Your task to perform on an android device: open sync settings in chrome Image 0: 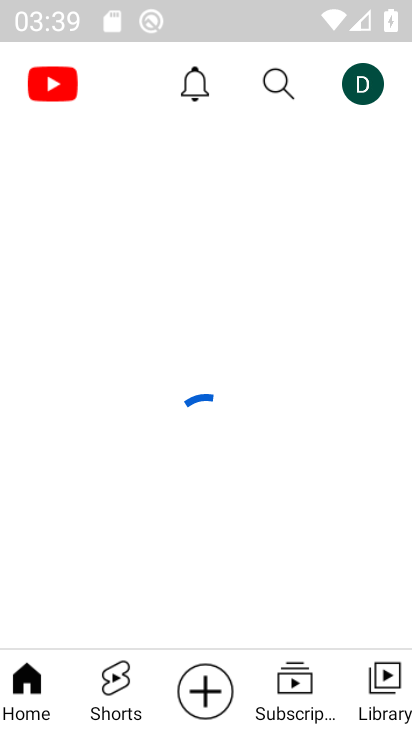
Step 0: press home button
Your task to perform on an android device: open sync settings in chrome Image 1: 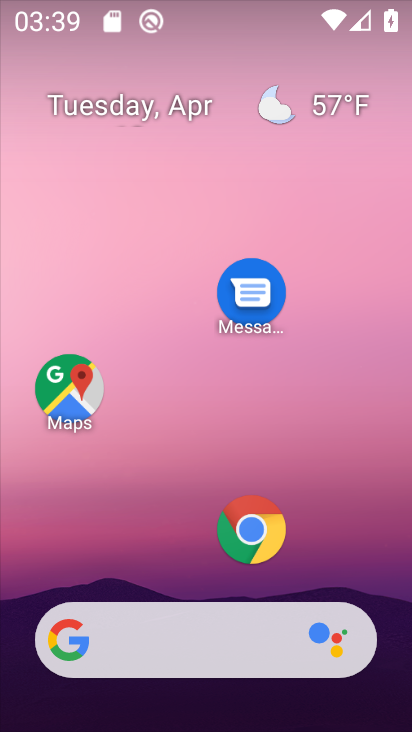
Step 1: click (249, 533)
Your task to perform on an android device: open sync settings in chrome Image 2: 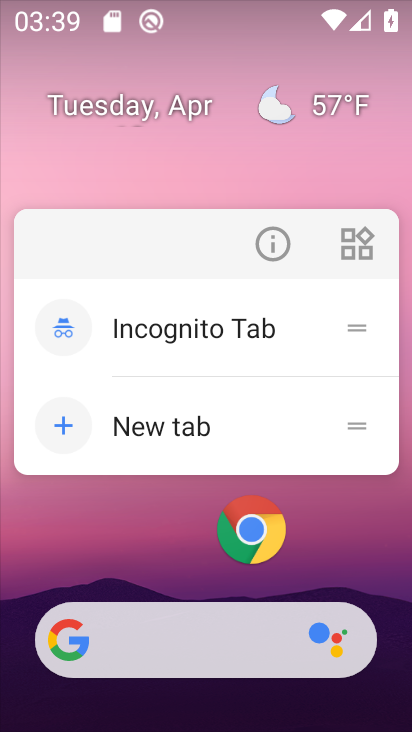
Step 2: click (249, 533)
Your task to perform on an android device: open sync settings in chrome Image 3: 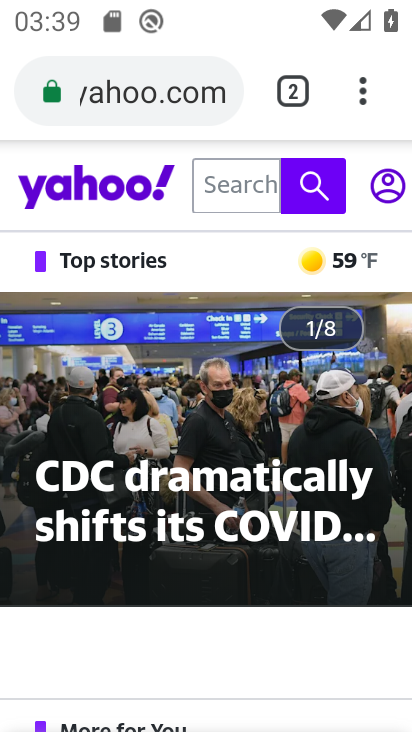
Step 3: click (358, 87)
Your task to perform on an android device: open sync settings in chrome Image 4: 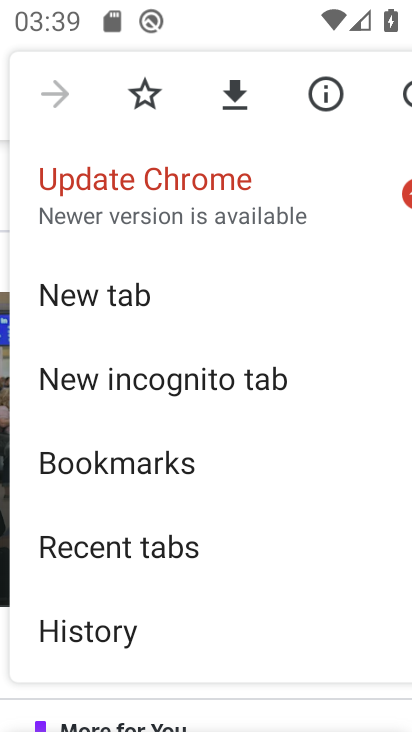
Step 4: drag from (205, 550) to (197, 124)
Your task to perform on an android device: open sync settings in chrome Image 5: 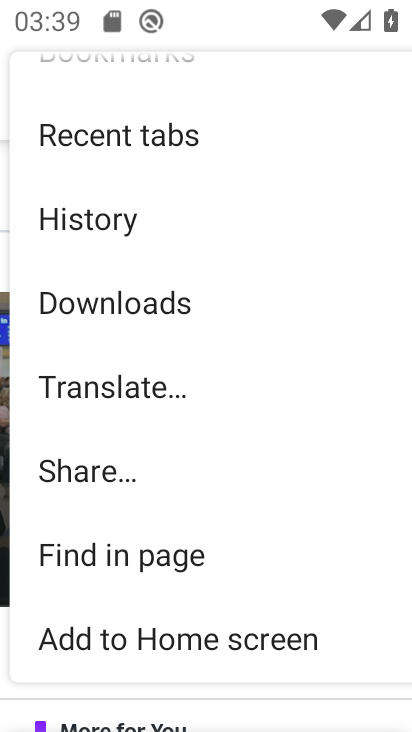
Step 5: drag from (183, 553) to (217, 188)
Your task to perform on an android device: open sync settings in chrome Image 6: 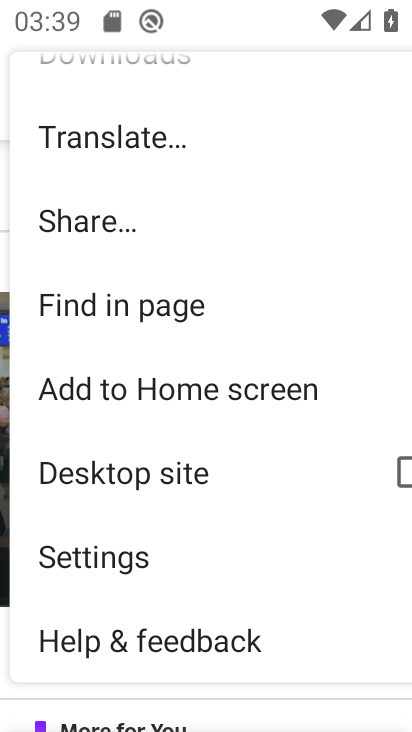
Step 6: click (127, 550)
Your task to perform on an android device: open sync settings in chrome Image 7: 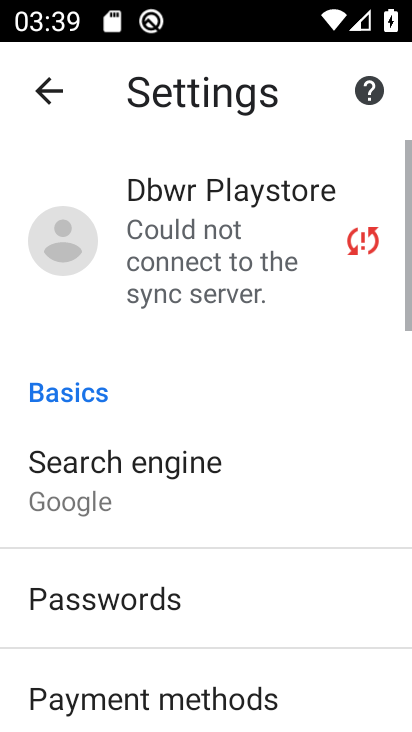
Step 7: drag from (191, 580) to (212, 213)
Your task to perform on an android device: open sync settings in chrome Image 8: 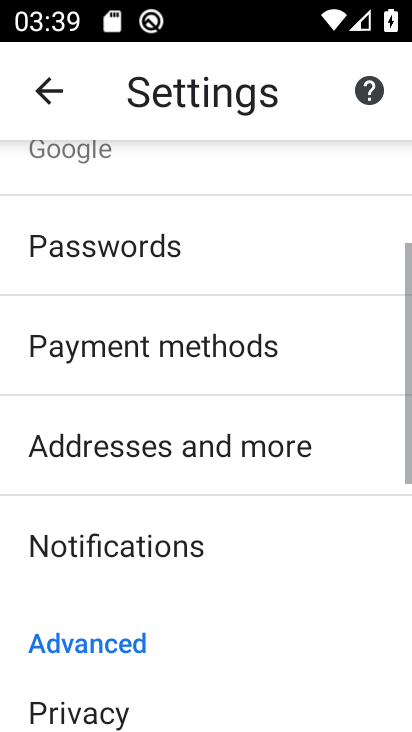
Step 8: drag from (203, 609) to (228, 247)
Your task to perform on an android device: open sync settings in chrome Image 9: 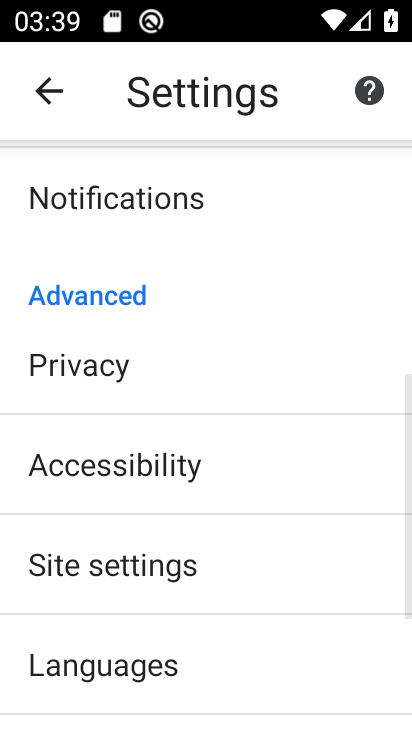
Step 9: drag from (172, 628) to (188, 327)
Your task to perform on an android device: open sync settings in chrome Image 10: 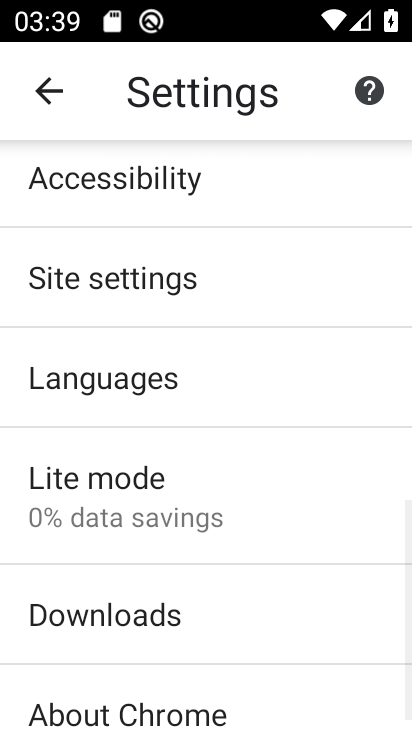
Step 10: drag from (154, 550) to (184, 416)
Your task to perform on an android device: open sync settings in chrome Image 11: 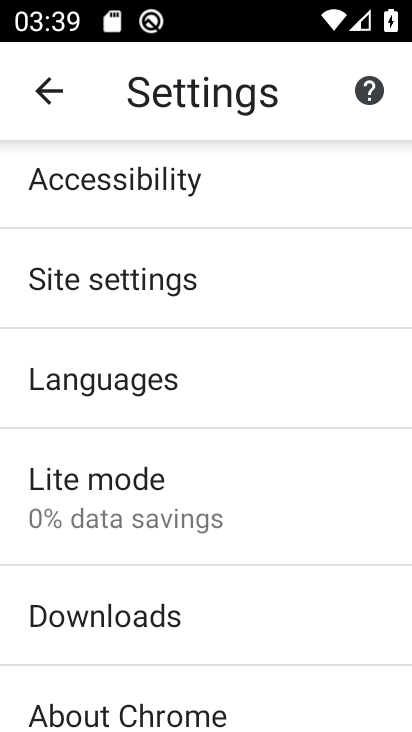
Step 11: click (147, 277)
Your task to perform on an android device: open sync settings in chrome Image 12: 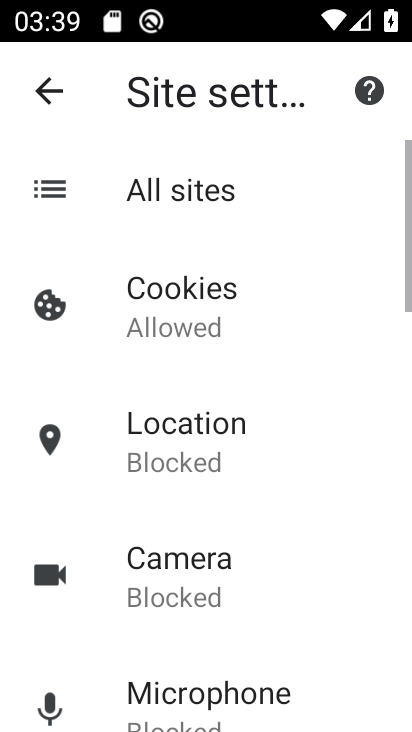
Step 12: drag from (242, 605) to (210, 241)
Your task to perform on an android device: open sync settings in chrome Image 13: 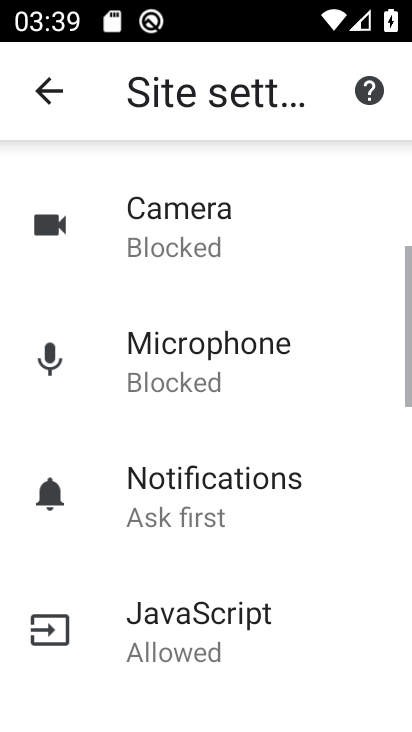
Step 13: drag from (179, 697) to (195, 277)
Your task to perform on an android device: open sync settings in chrome Image 14: 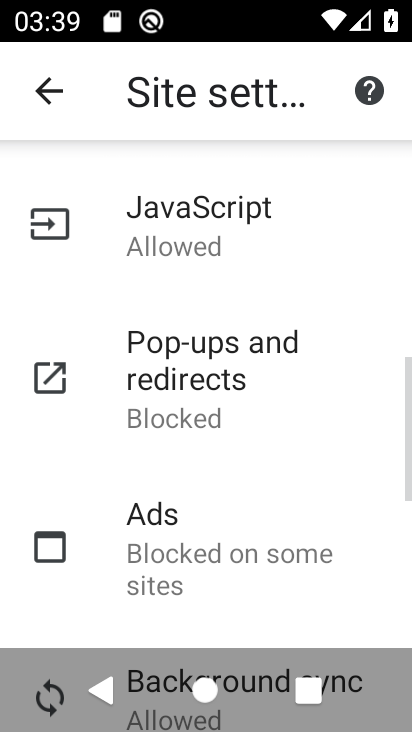
Step 14: drag from (233, 639) to (207, 391)
Your task to perform on an android device: open sync settings in chrome Image 15: 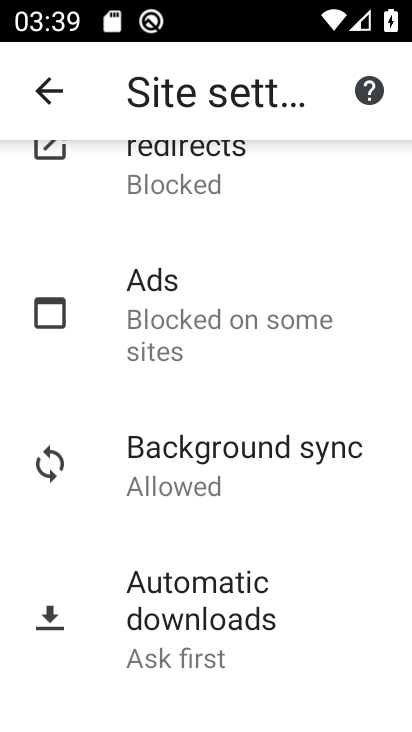
Step 15: click (173, 460)
Your task to perform on an android device: open sync settings in chrome Image 16: 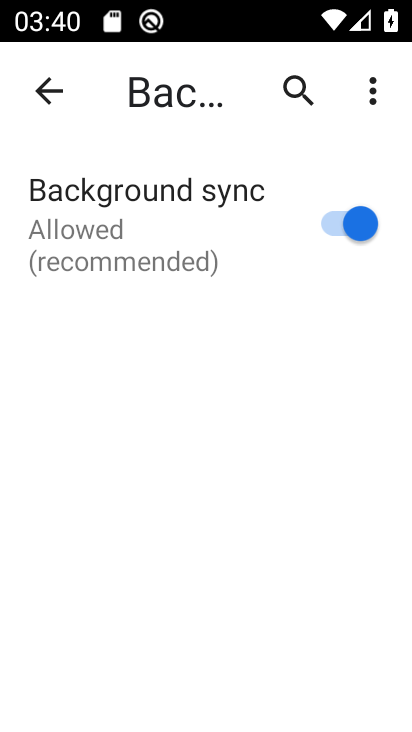
Step 16: task complete